Your task to perform on an android device: show emergency info Image 0: 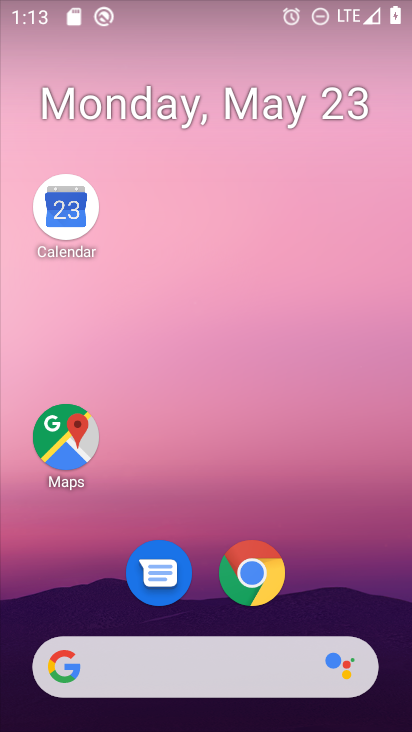
Step 0: drag from (352, 600) to (388, 49)
Your task to perform on an android device: show emergency info Image 1: 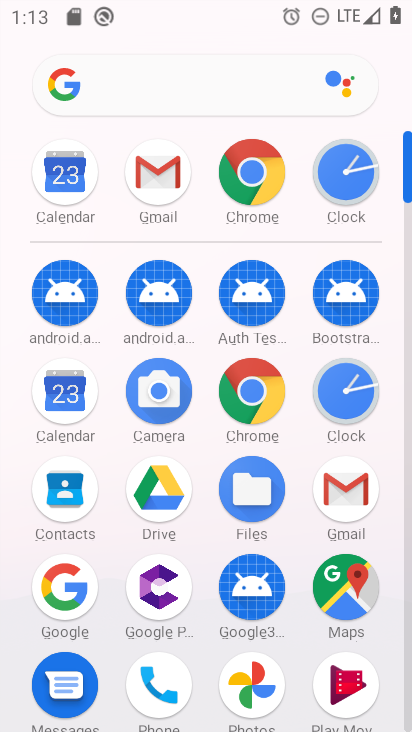
Step 1: drag from (202, 633) to (253, 322)
Your task to perform on an android device: show emergency info Image 2: 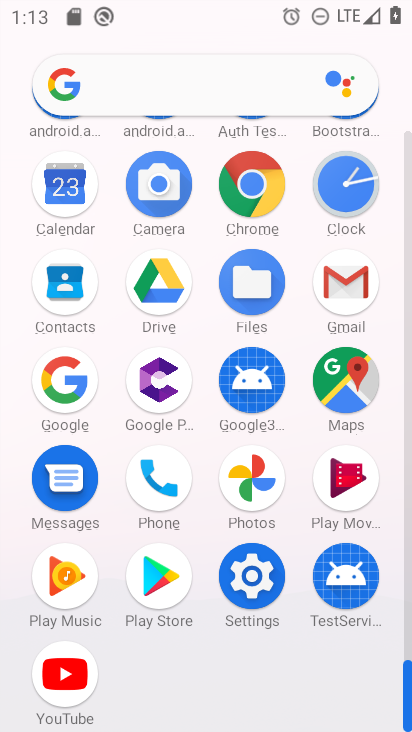
Step 2: click (264, 587)
Your task to perform on an android device: show emergency info Image 3: 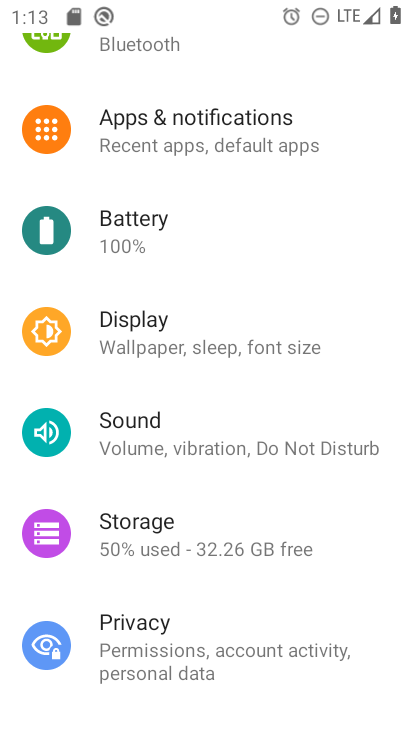
Step 3: drag from (183, 677) to (200, 440)
Your task to perform on an android device: show emergency info Image 4: 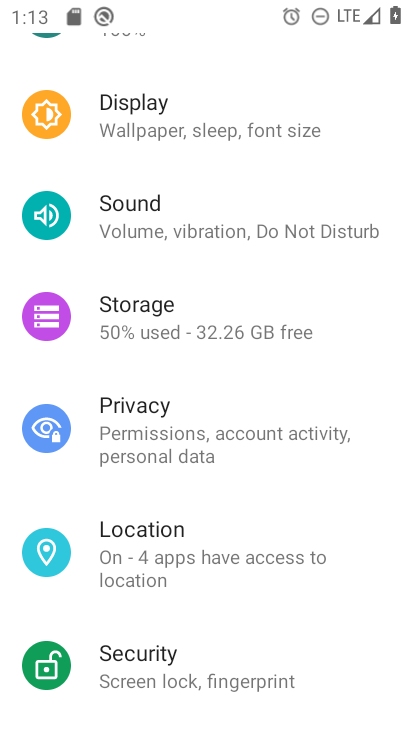
Step 4: drag from (183, 653) to (203, 452)
Your task to perform on an android device: show emergency info Image 5: 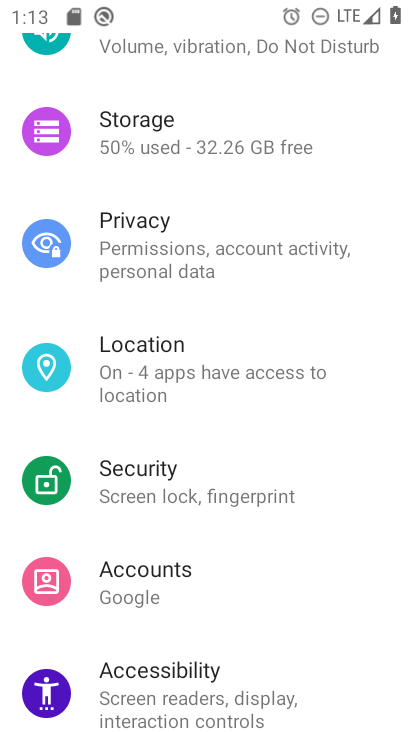
Step 5: drag from (211, 623) to (276, 316)
Your task to perform on an android device: show emergency info Image 6: 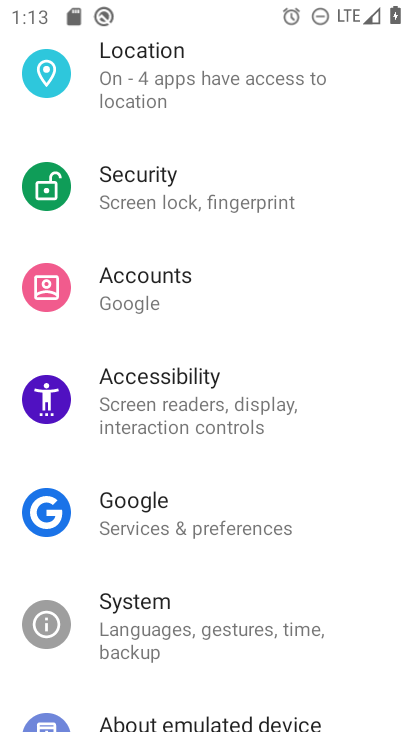
Step 6: drag from (161, 667) to (214, 362)
Your task to perform on an android device: show emergency info Image 7: 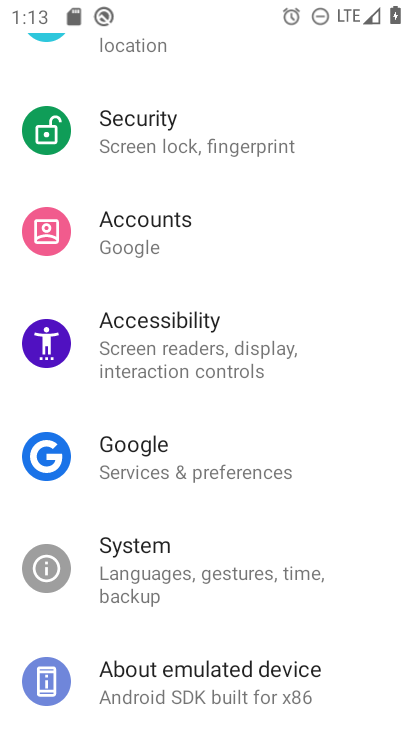
Step 7: click (156, 657)
Your task to perform on an android device: show emergency info Image 8: 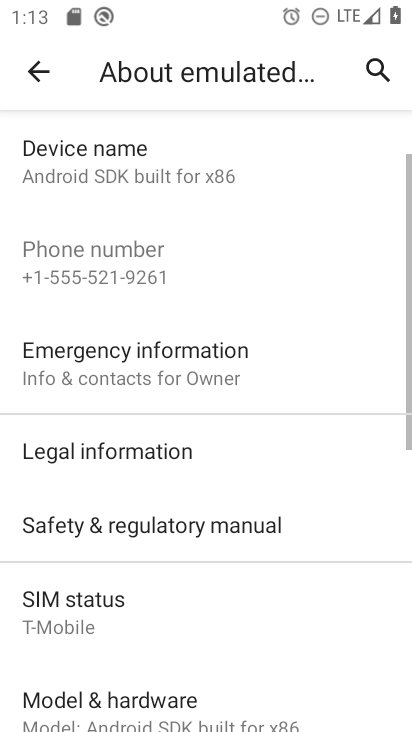
Step 8: click (117, 353)
Your task to perform on an android device: show emergency info Image 9: 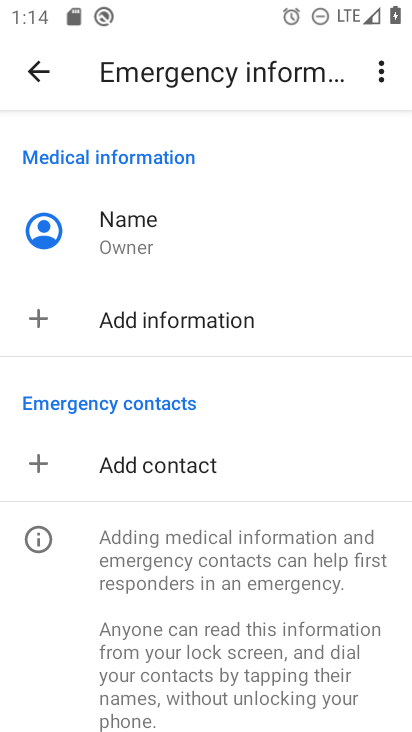
Step 9: task complete